Your task to perform on an android device: Open internet settings Image 0: 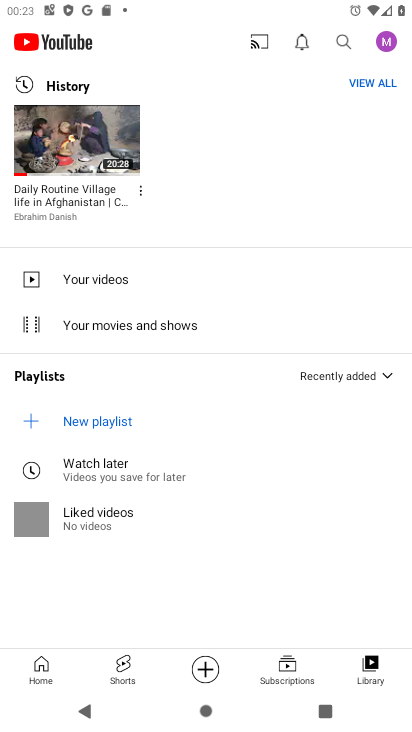
Step 0: press home button
Your task to perform on an android device: Open internet settings Image 1: 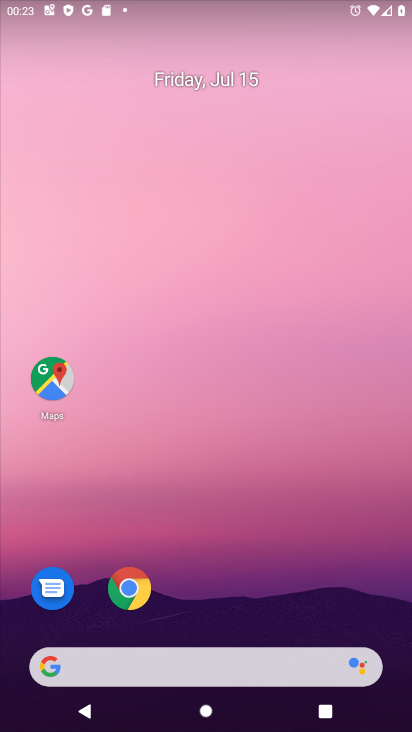
Step 1: click (337, 90)
Your task to perform on an android device: Open internet settings Image 2: 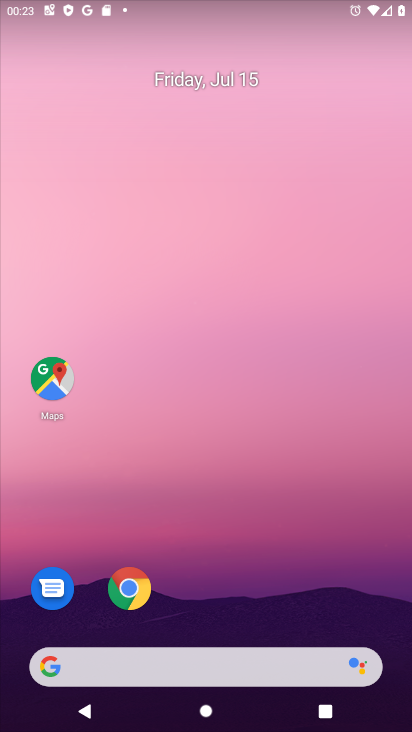
Step 2: drag from (148, 661) to (271, 92)
Your task to perform on an android device: Open internet settings Image 3: 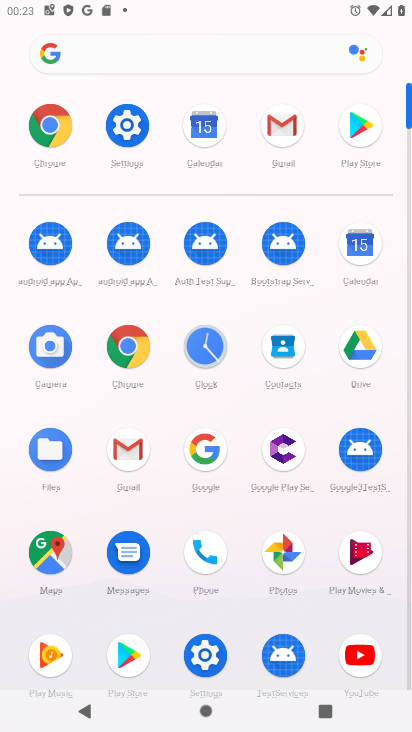
Step 3: click (131, 135)
Your task to perform on an android device: Open internet settings Image 4: 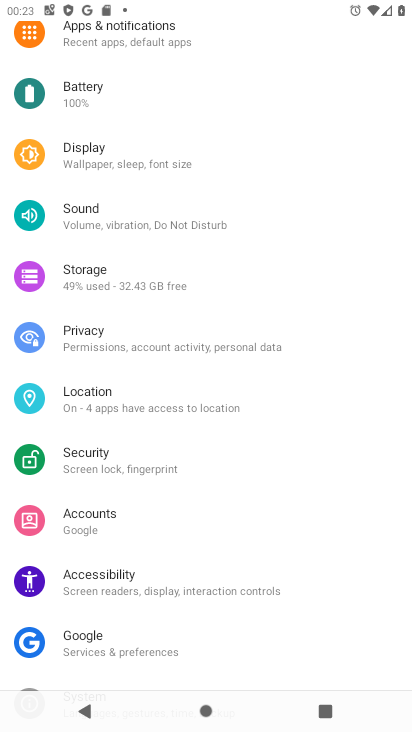
Step 4: drag from (335, 489) to (293, 678)
Your task to perform on an android device: Open internet settings Image 5: 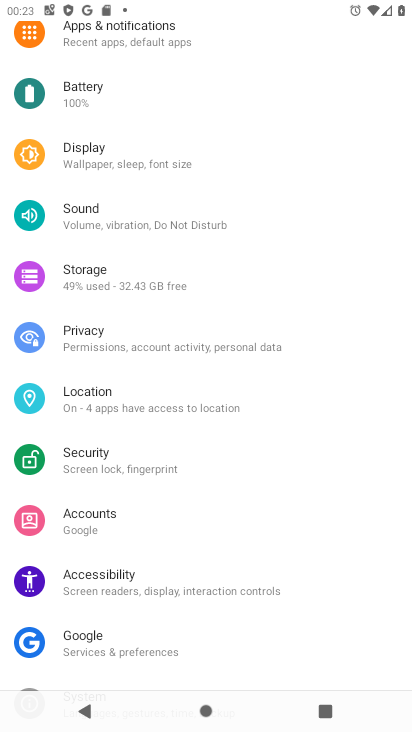
Step 5: drag from (219, 186) to (191, 619)
Your task to perform on an android device: Open internet settings Image 6: 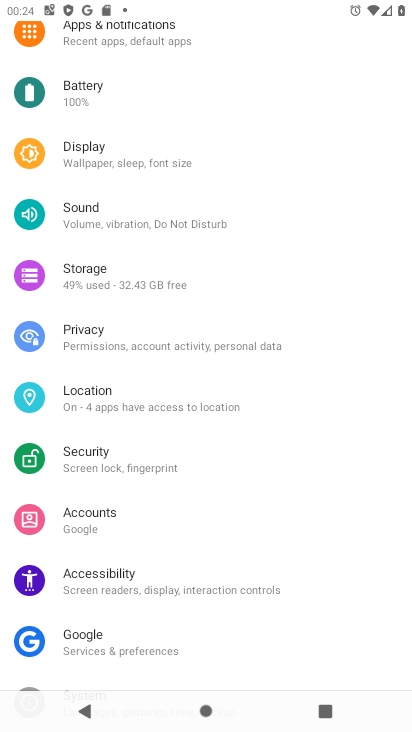
Step 6: drag from (209, 181) to (221, 509)
Your task to perform on an android device: Open internet settings Image 7: 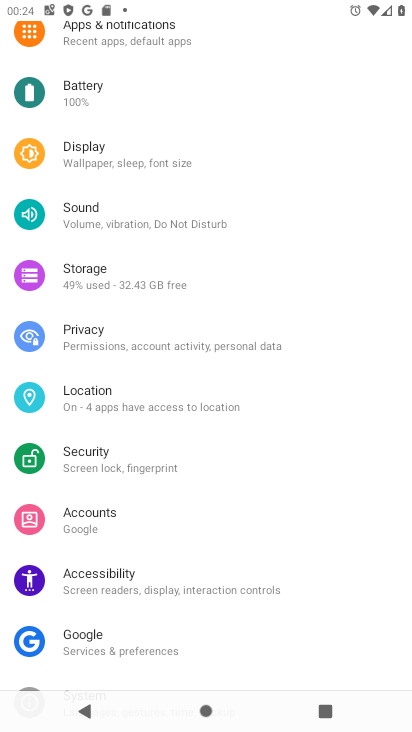
Step 7: drag from (260, 75) to (261, 507)
Your task to perform on an android device: Open internet settings Image 8: 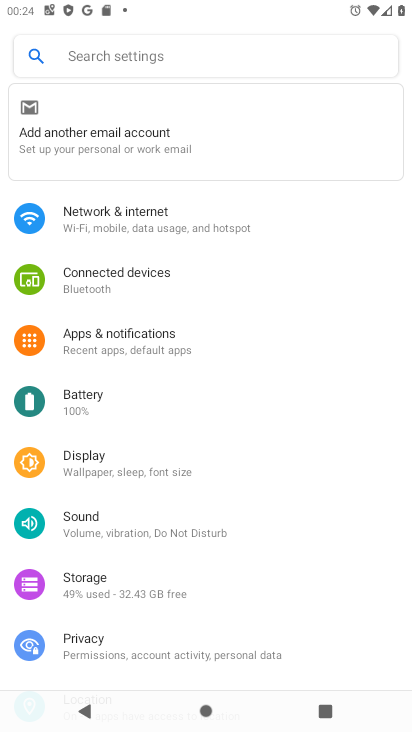
Step 8: click (155, 220)
Your task to perform on an android device: Open internet settings Image 9: 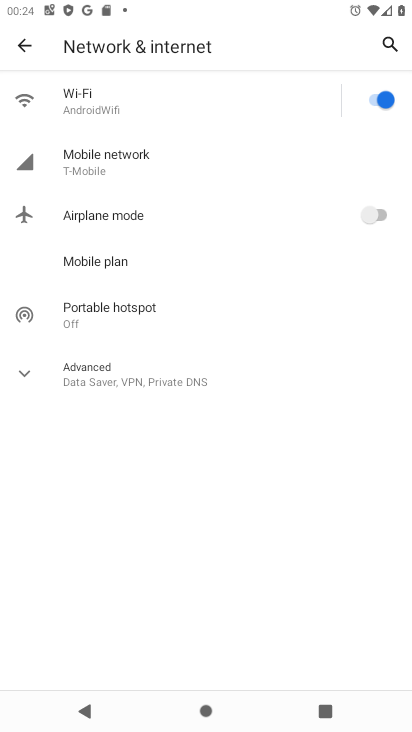
Step 9: task complete